Your task to perform on an android device: What's the latest news in astronomy? Image 0: 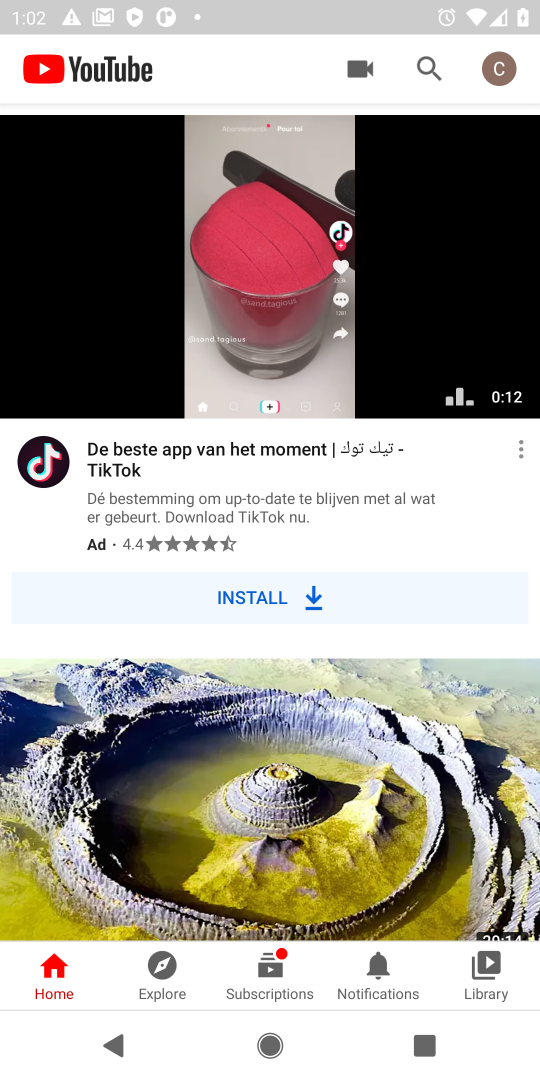
Step 0: press home button
Your task to perform on an android device: What's the latest news in astronomy? Image 1: 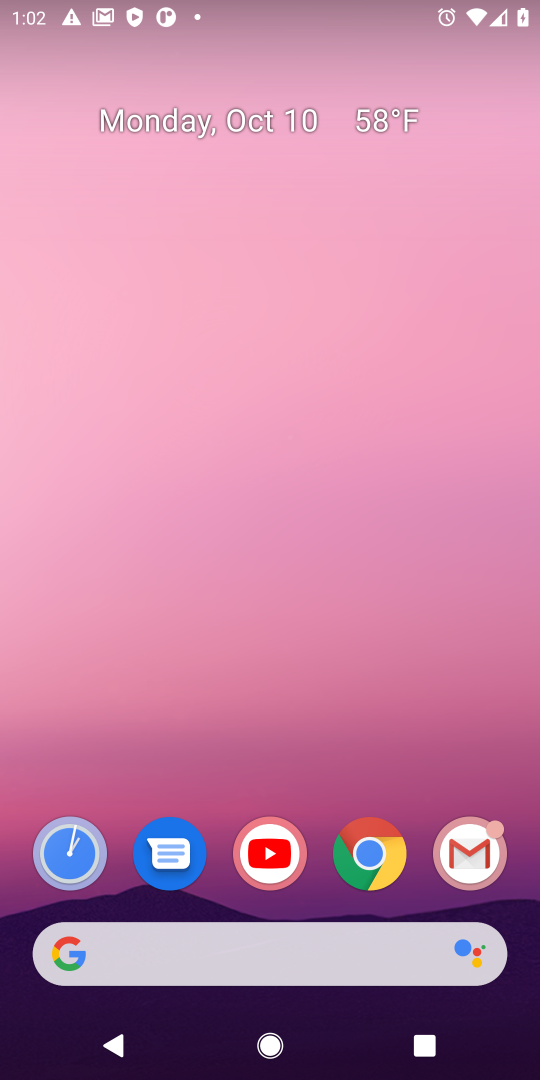
Step 1: click (390, 849)
Your task to perform on an android device: What's the latest news in astronomy? Image 2: 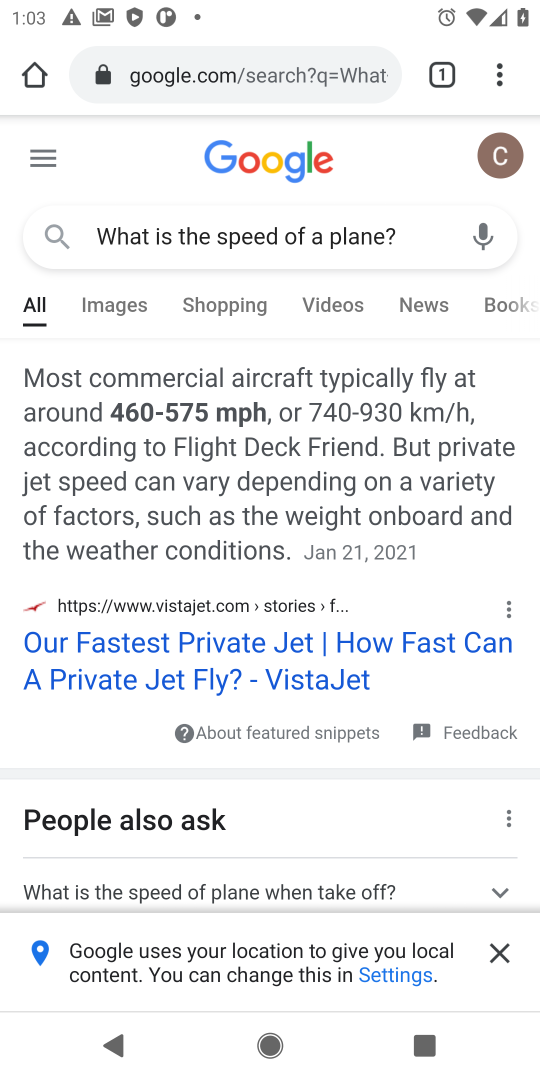
Step 2: click (326, 239)
Your task to perform on an android device: What's the latest news in astronomy? Image 3: 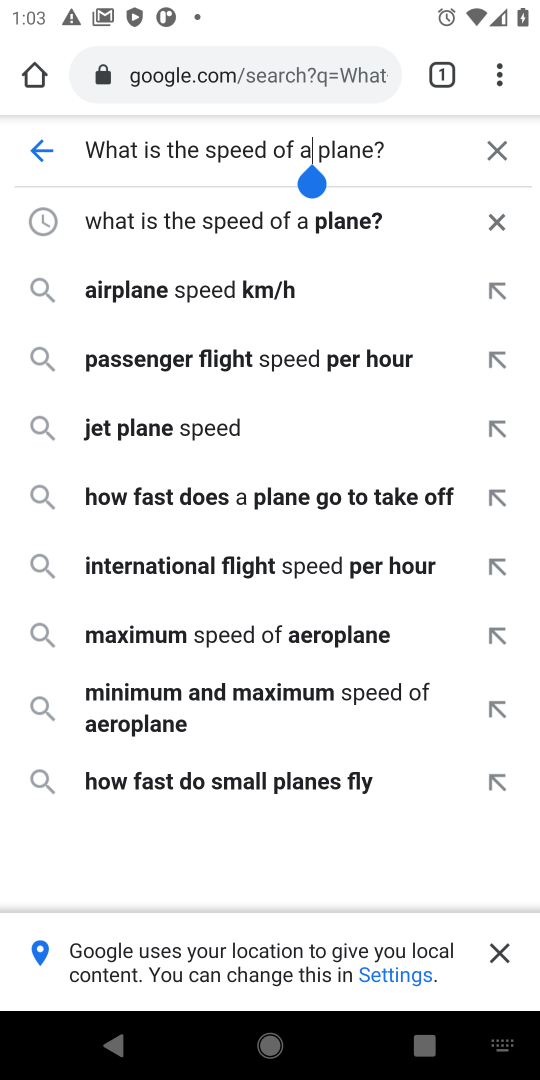
Step 3: click (488, 148)
Your task to perform on an android device: What's the latest news in astronomy? Image 4: 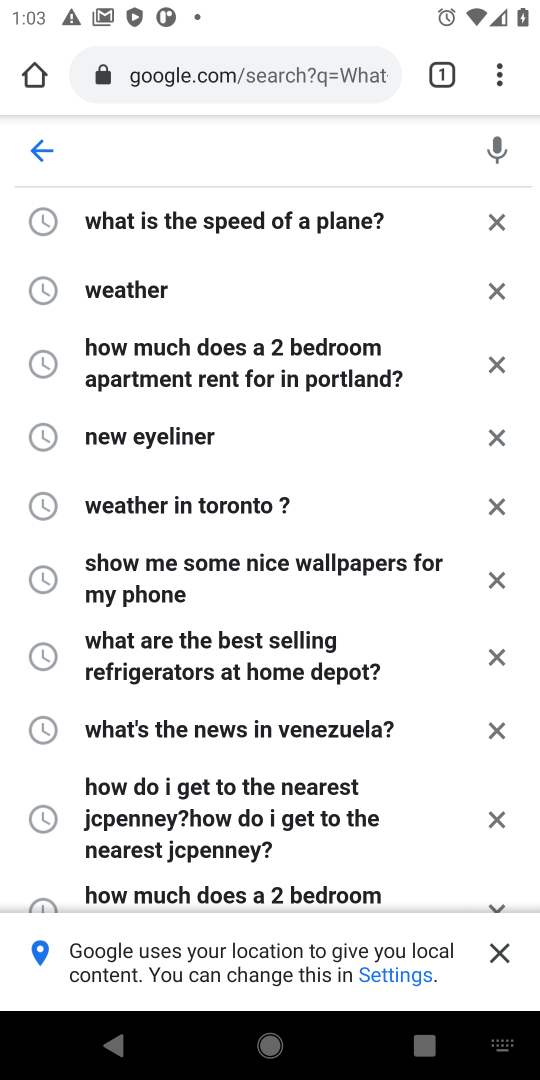
Step 4: type "What's the latest news in astronomy?"
Your task to perform on an android device: What's the latest news in astronomy? Image 5: 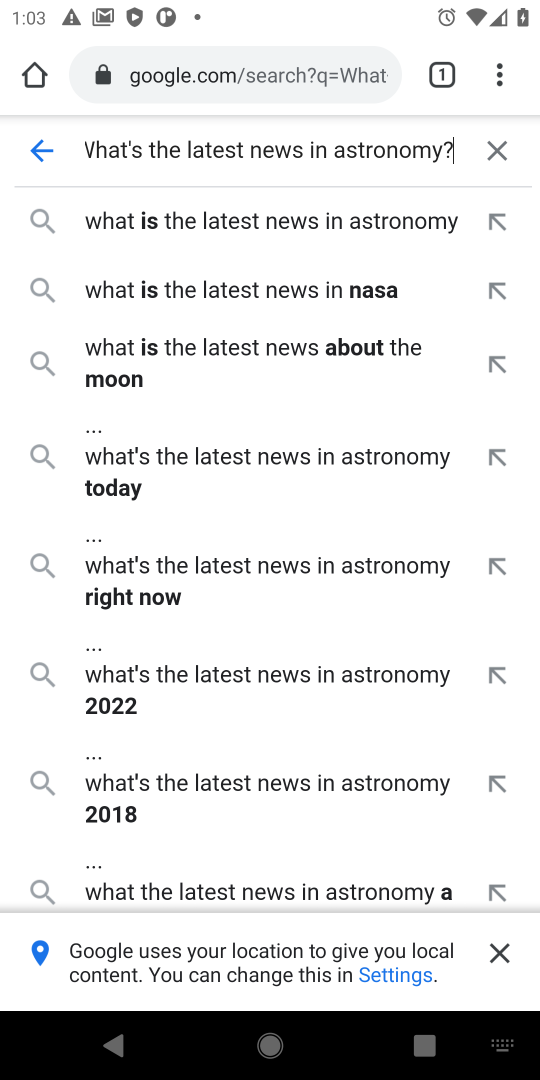
Step 5: press enter
Your task to perform on an android device: What's the latest news in astronomy? Image 6: 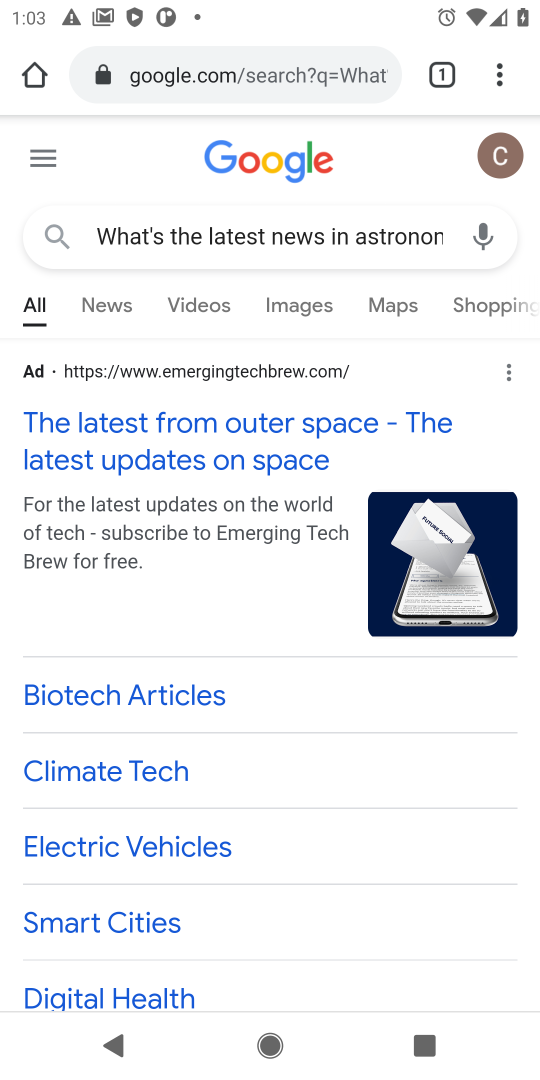
Step 6: click (98, 308)
Your task to perform on an android device: What's the latest news in astronomy? Image 7: 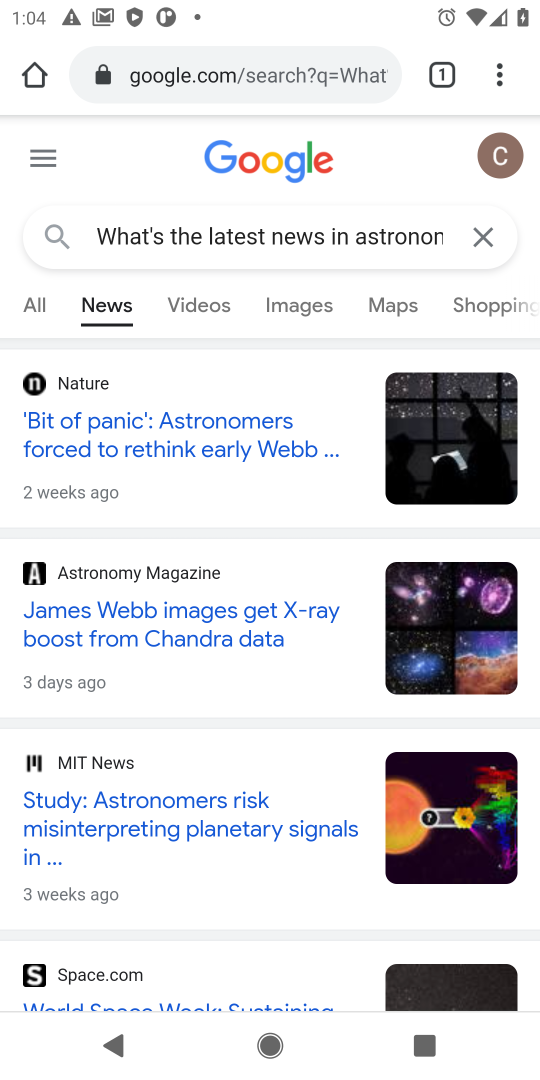
Step 7: task complete